Your task to perform on an android device: When is my next meeting? Image 0: 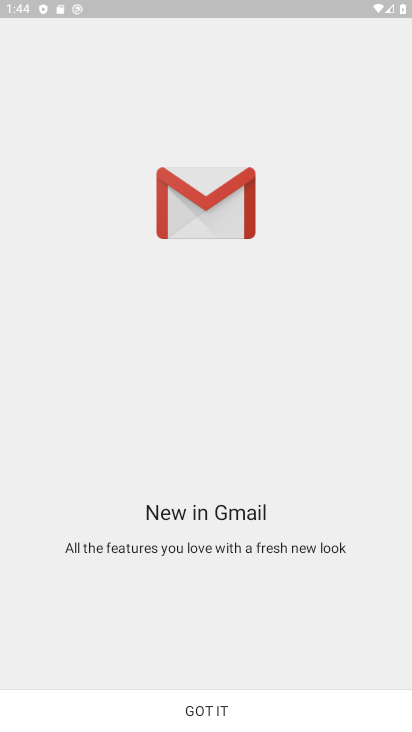
Step 0: press home button
Your task to perform on an android device: When is my next meeting? Image 1: 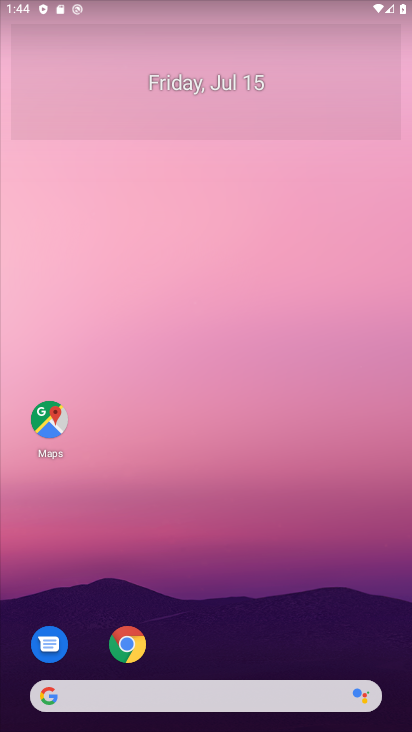
Step 1: drag from (41, 648) to (243, 236)
Your task to perform on an android device: When is my next meeting? Image 2: 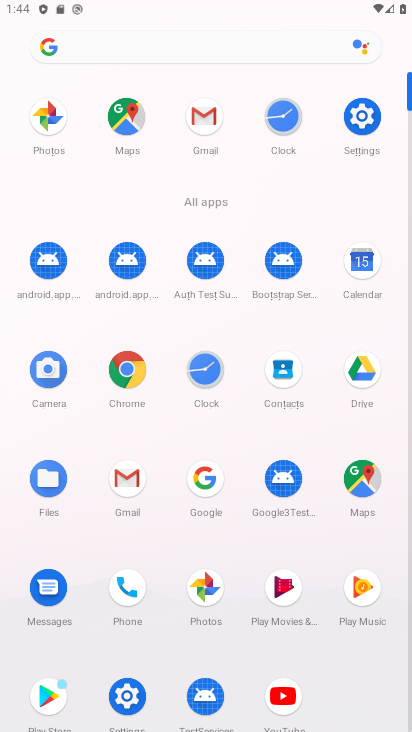
Step 2: click (354, 257)
Your task to perform on an android device: When is my next meeting? Image 3: 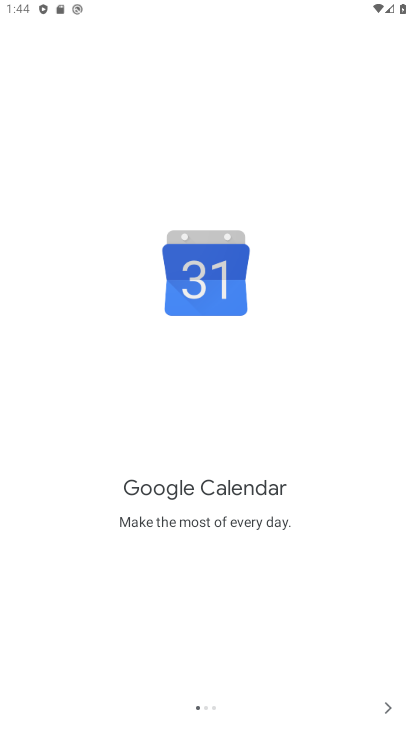
Step 3: click (388, 707)
Your task to perform on an android device: When is my next meeting? Image 4: 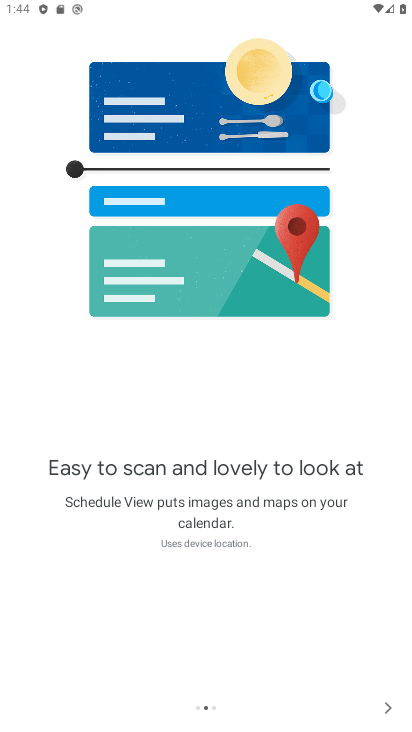
Step 4: click (388, 693)
Your task to perform on an android device: When is my next meeting? Image 5: 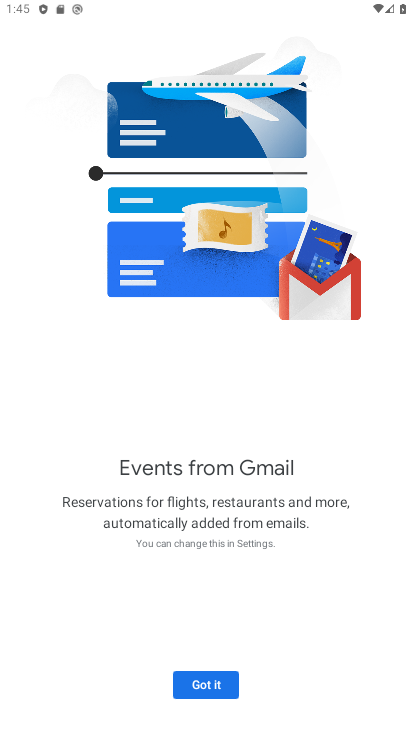
Step 5: click (202, 683)
Your task to perform on an android device: When is my next meeting? Image 6: 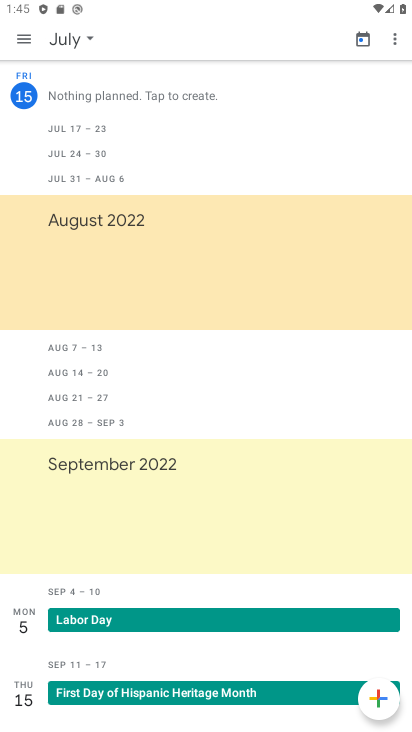
Step 6: click (64, 37)
Your task to perform on an android device: When is my next meeting? Image 7: 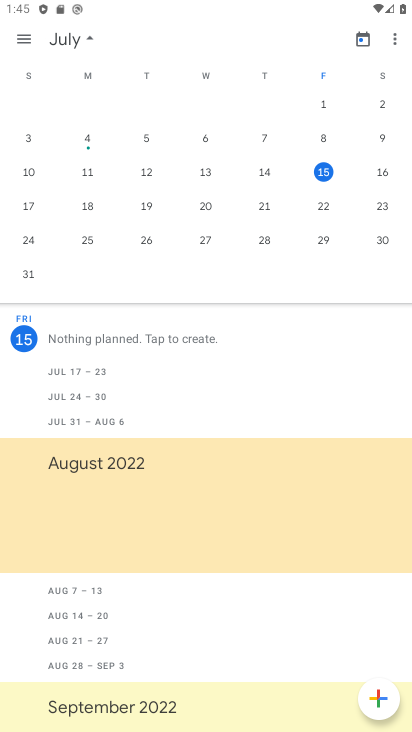
Step 7: task complete